Your task to perform on an android device: turn on notifications settings in the gmail app Image 0: 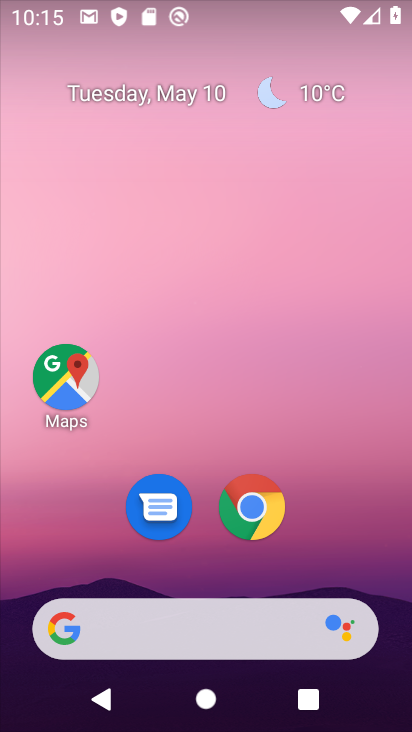
Step 0: drag from (329, 549) to (346, 122)
Your task to perform on an android device: turn on notifications settings in the gmail app Image 1: 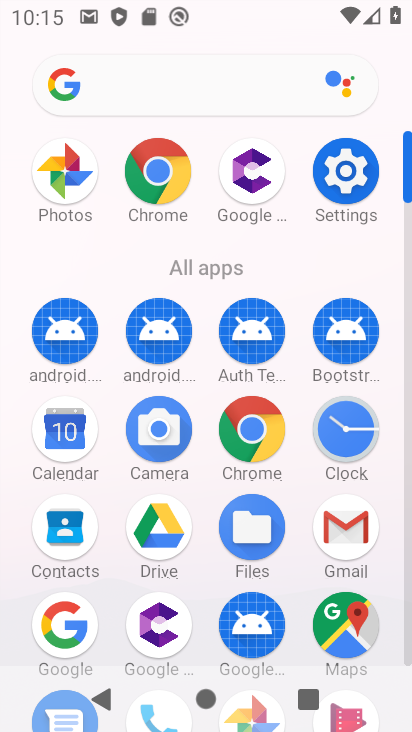
Step 1: click (324, 527)
Your task to perform on an android device: turn on notifications settings in the gmail app Image 2: 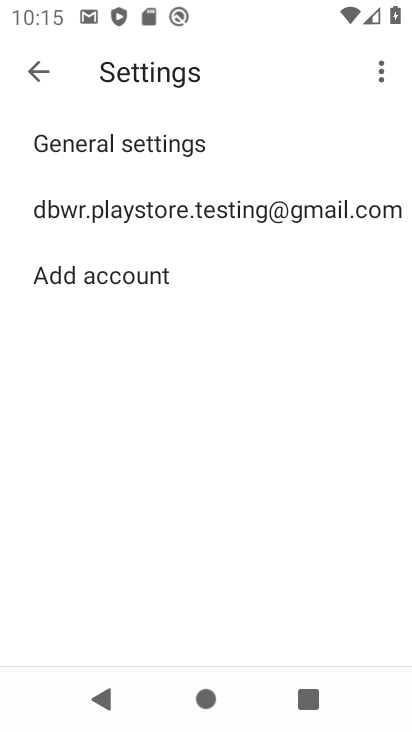
Step 2: click (135, 219)
Your task to perform on an android device: turn on notifications settings in the gmail app Image 3: 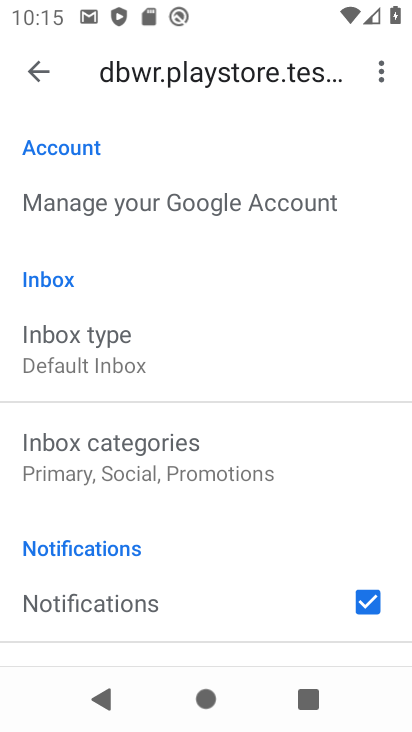
Step 3: drag from (177, 570) to (192, 289)
Your task to perform on an android device: turn on notifications settings in the gmail app Image 4: 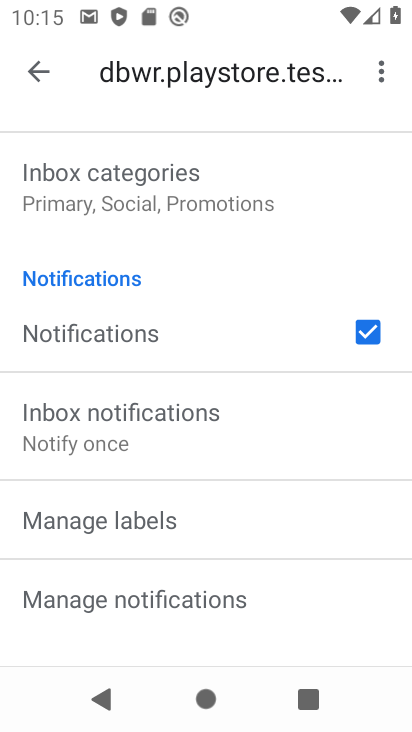
Step 4: click (143, 416)
Your task to perform on an android device: turn on notifications settings in the gmail app Image 5: 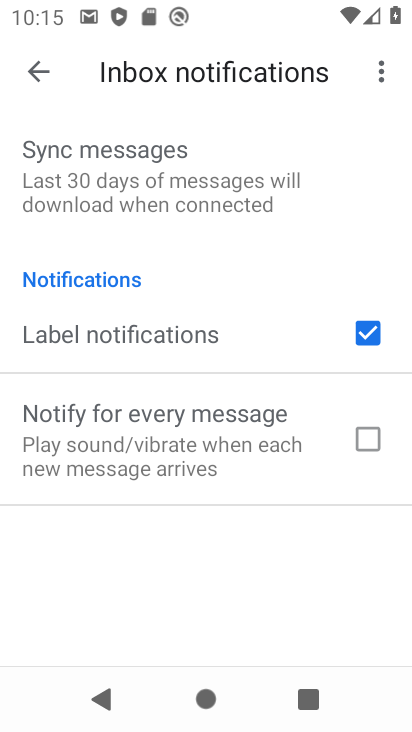
Step 5: task complete